Your task to perform on an android device: turn off notifications settings in the gmail app Image 0: 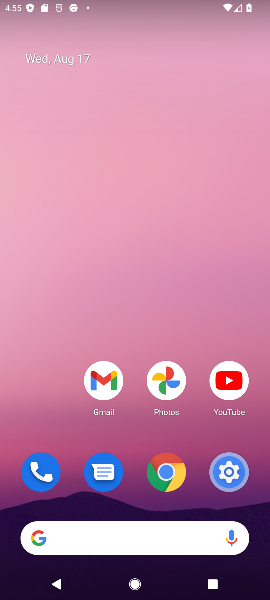
Step 0: click (114, 395)
Your task to perform on an android device: turn off notifications settings in the gmail app Image 1: 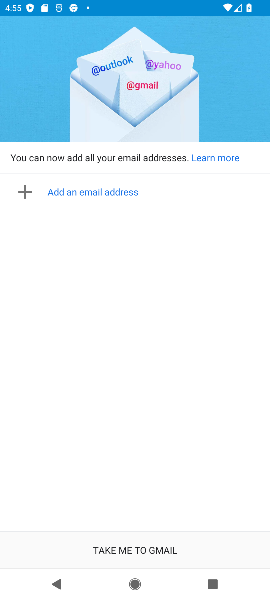
Step 1: click (133, 552)
Your task to perform on an android device: turn off notifications settings in the gmail app Image 2: 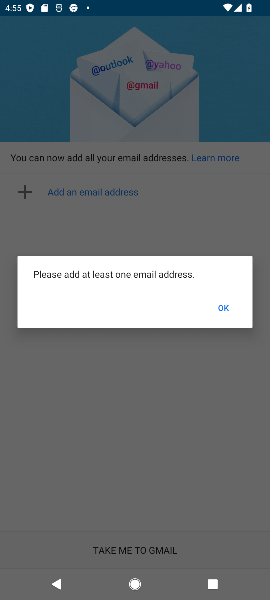
Step 2: task complete